Your task to perform on an android device: stop showing notifications on the lock screen Image 0: 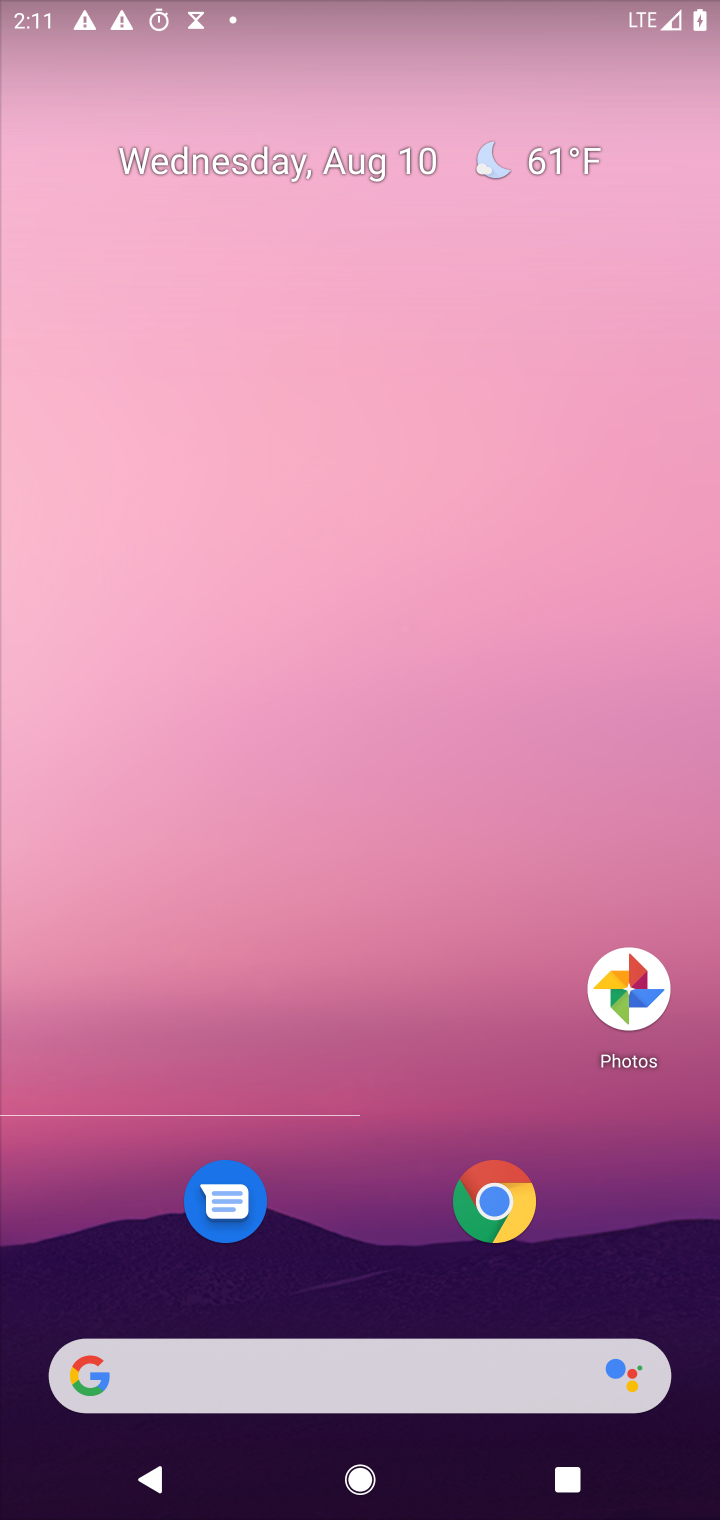
Step 0: press home button
Your task to perform on an android device: stop showing notifications on the lock screen Image 1: 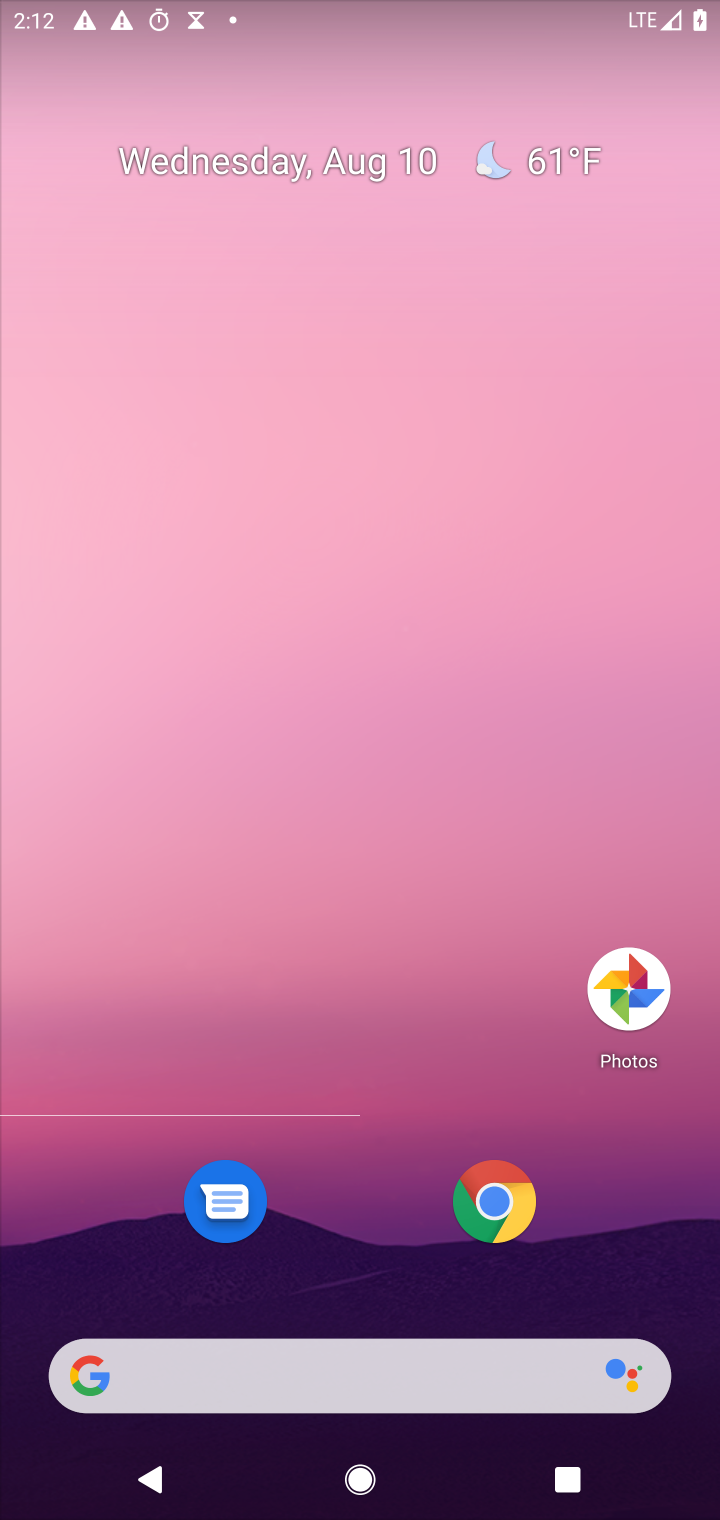
Step 1: drag from (376, 1261) to (368, 287)
Your task to perform on an android device: stop showing notifications on the lock screen Image 2: 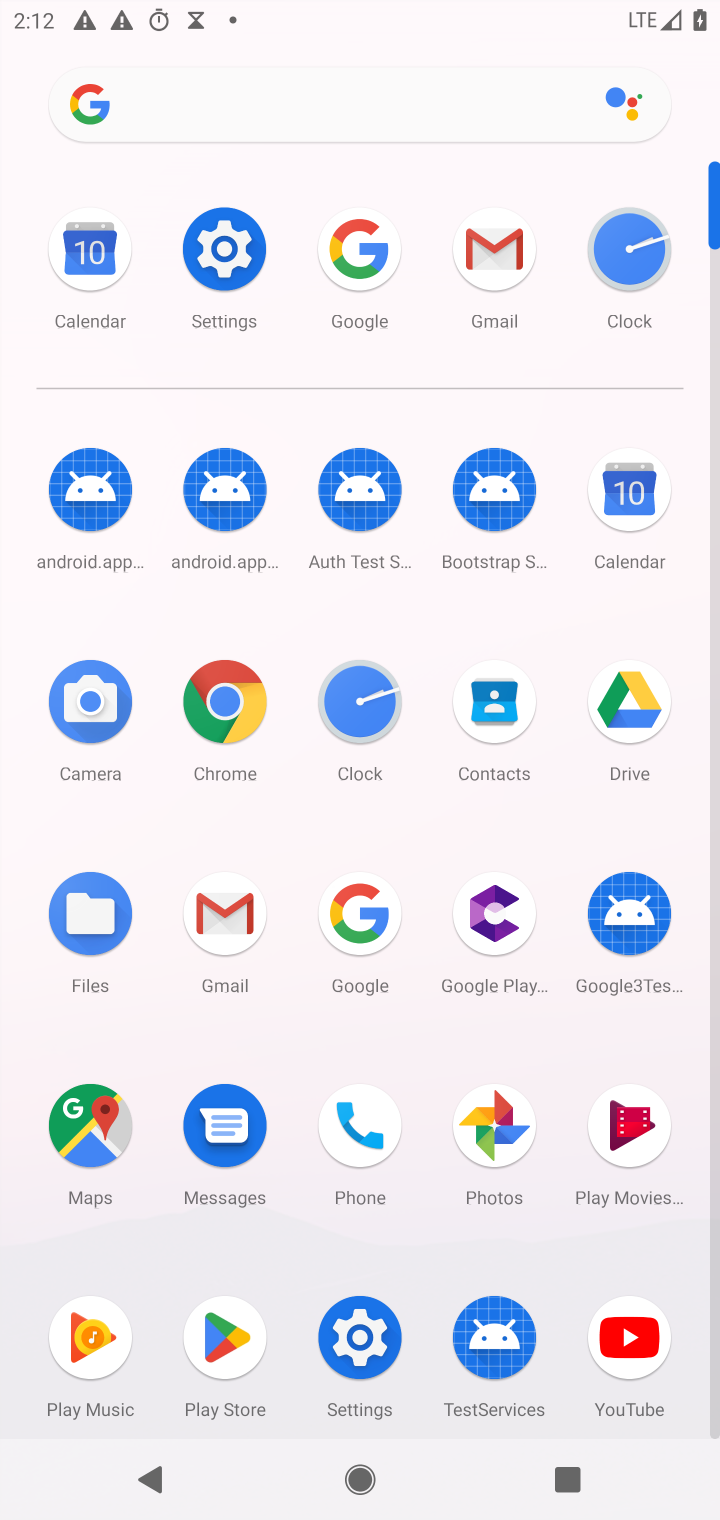
Step 2: click (211, 254)
Your task to perform on an android device: stop showing notifications on the lock screen Image 3: 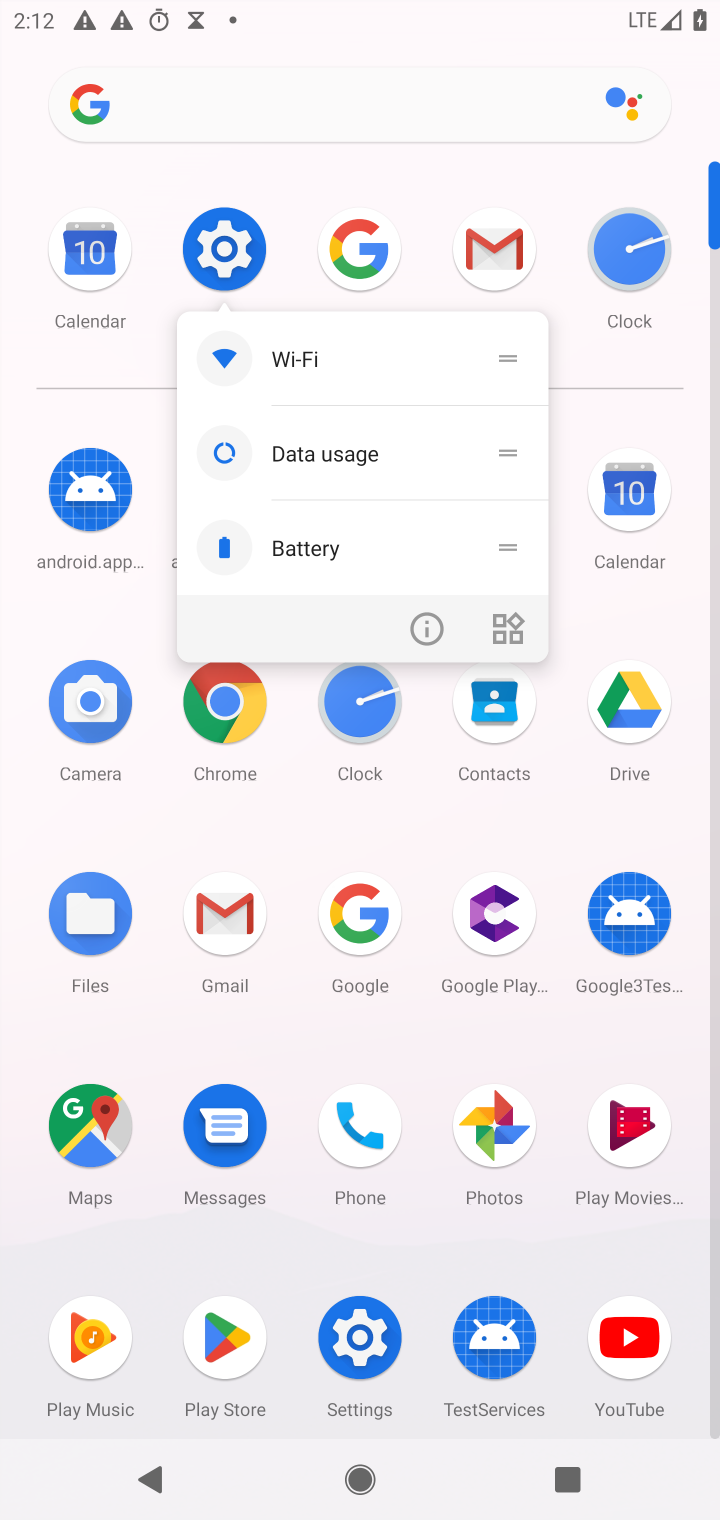
Step 3: click (208, 254)
Your task to perform on an android device: stop showing notifications on the lock screen Image 4: 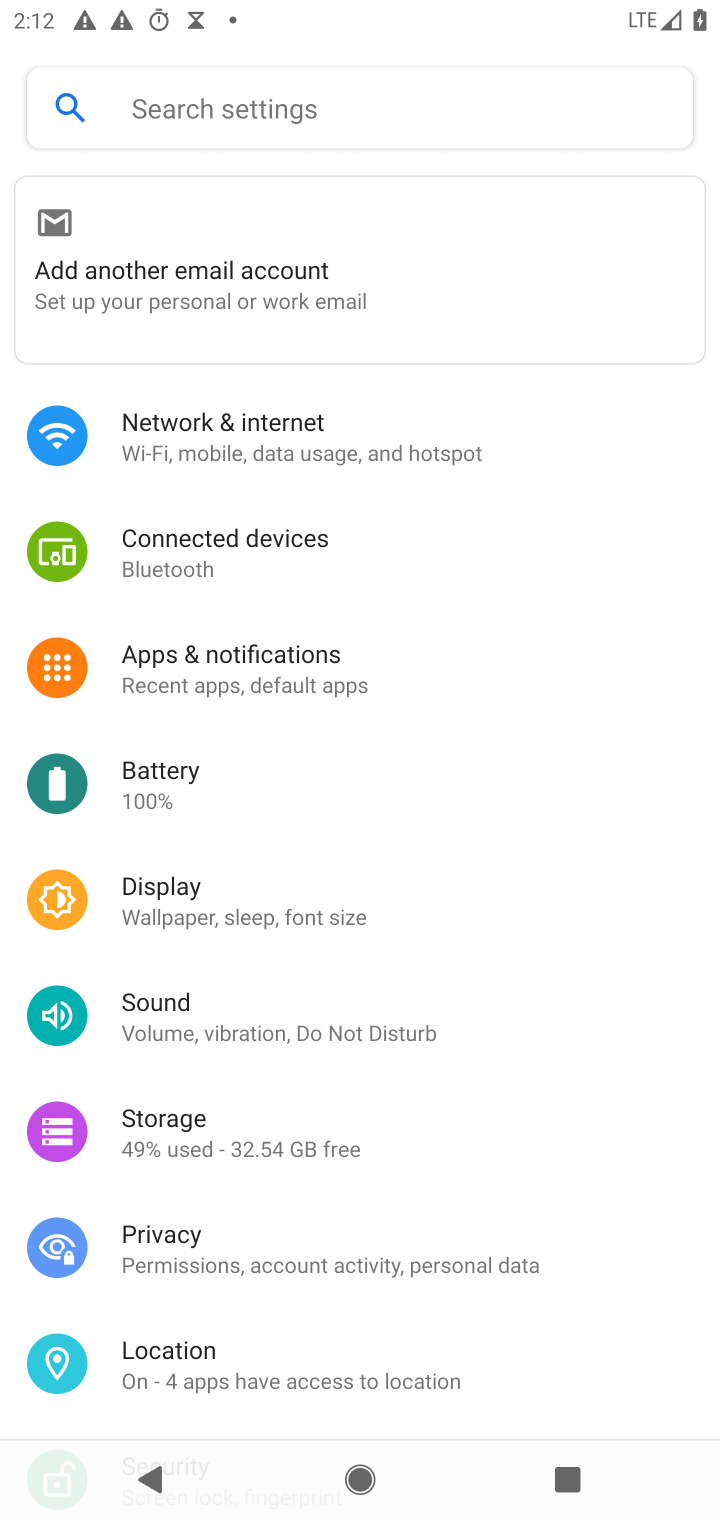
Step 4: click (190, 681)
Your task to perform on an android device: stop showing notifications on the lock screen Image 5: 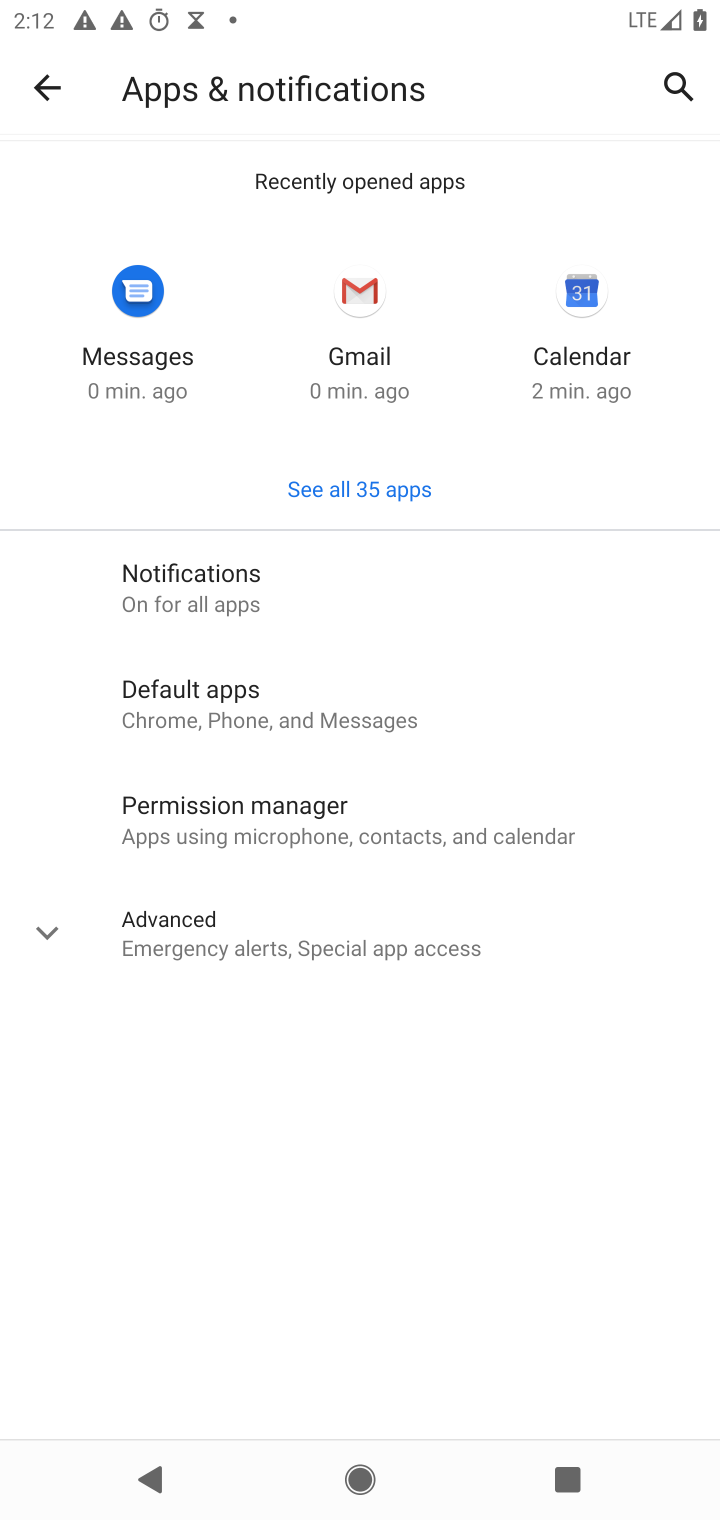
Step 5: click (180, 568)
Your task to perform on an android device: stop showing notifications on the lock screen Image 6: 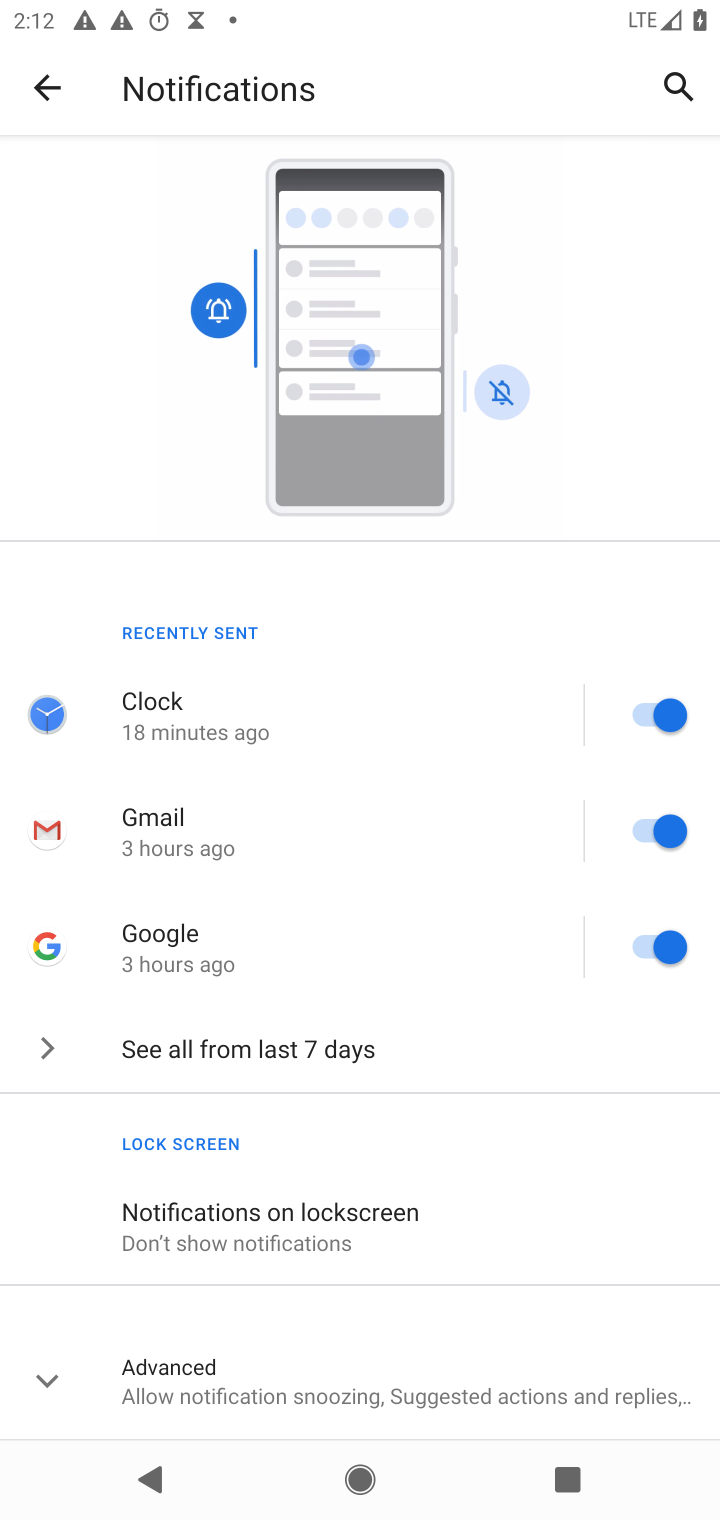
Step 6: drag from (565, 1324) to (596, 835)
Your task to perform on an android device: stop showing notifications on the lock screen Image 7: 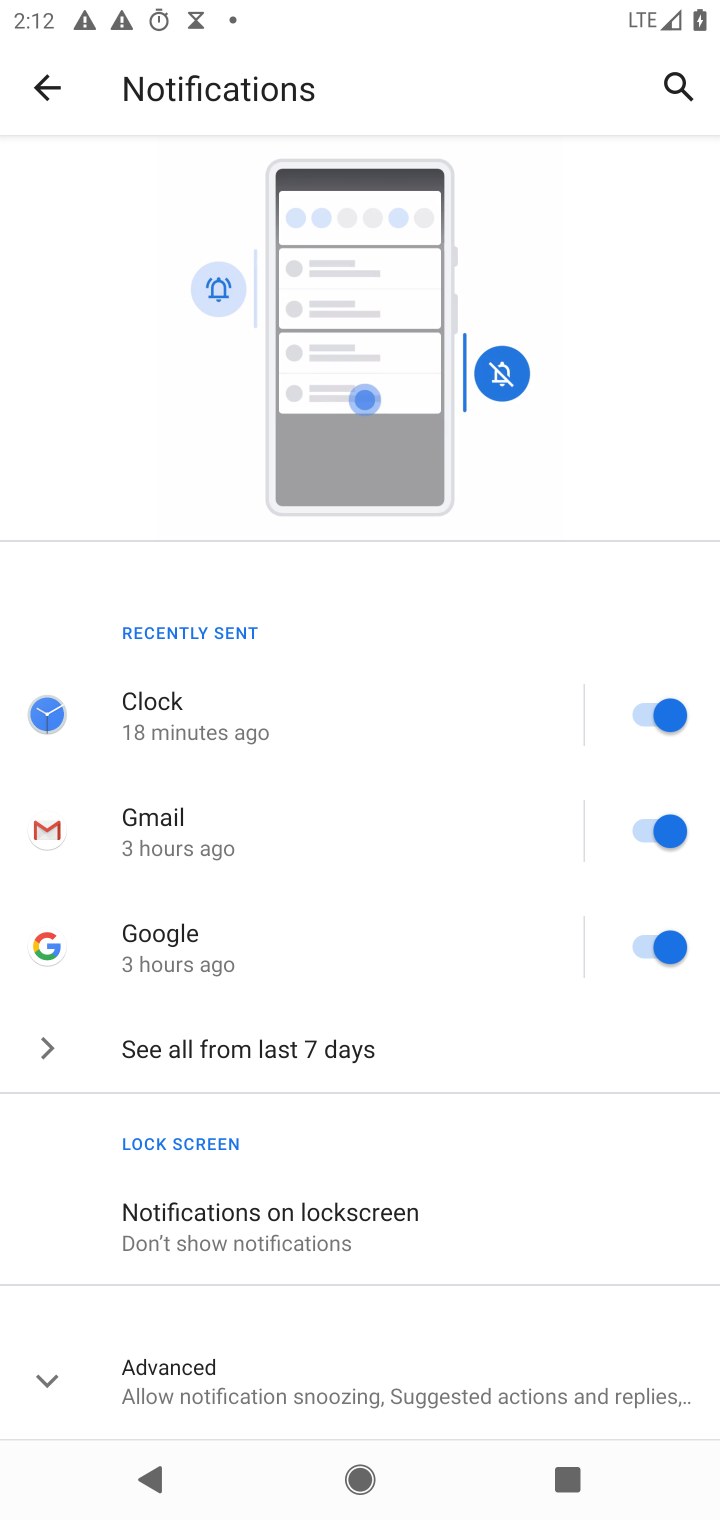
Step 7: click (276, 1221)
Your task to perform on an android device: stop showing notifications on the lock screen Image 8: 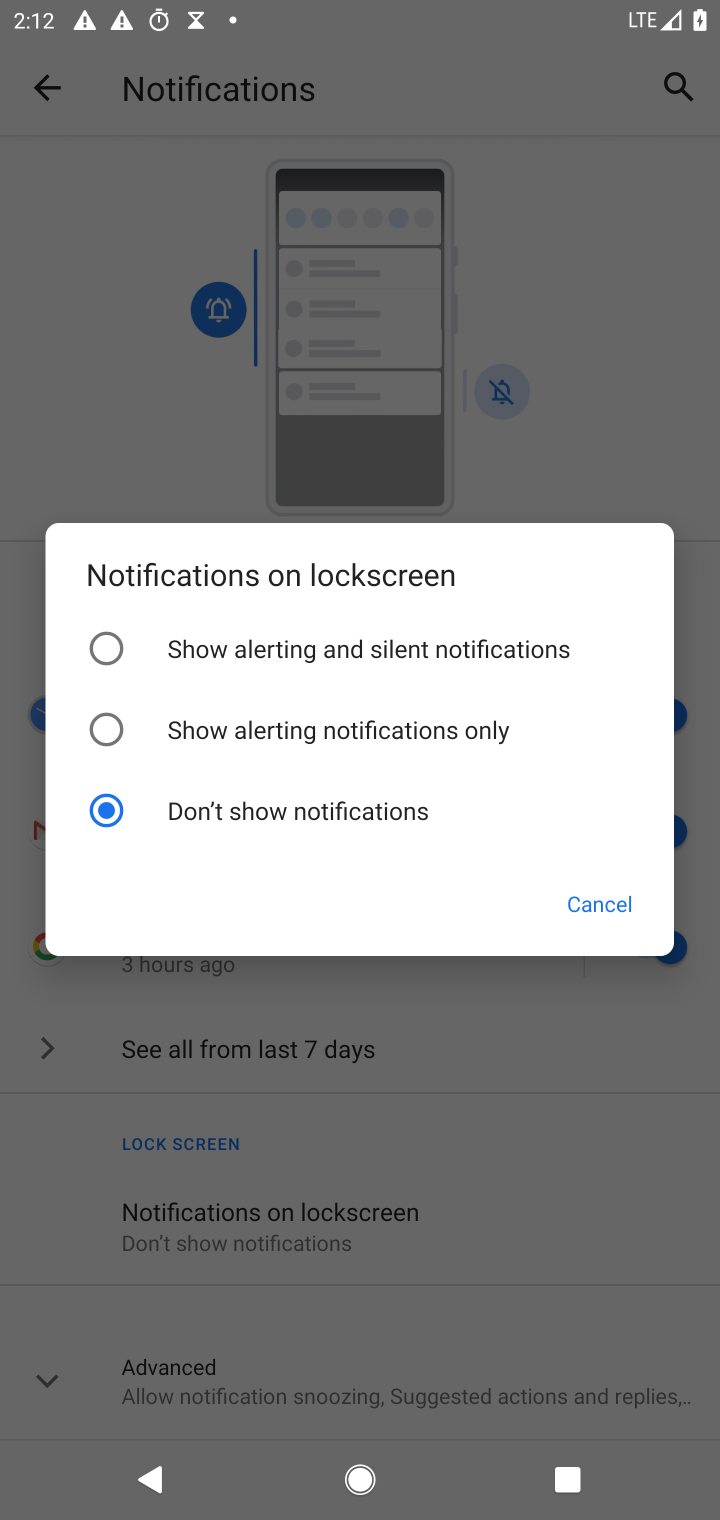
Step 8: task complete